Your task to perform on an android device: Open Wikipedia Image 0: 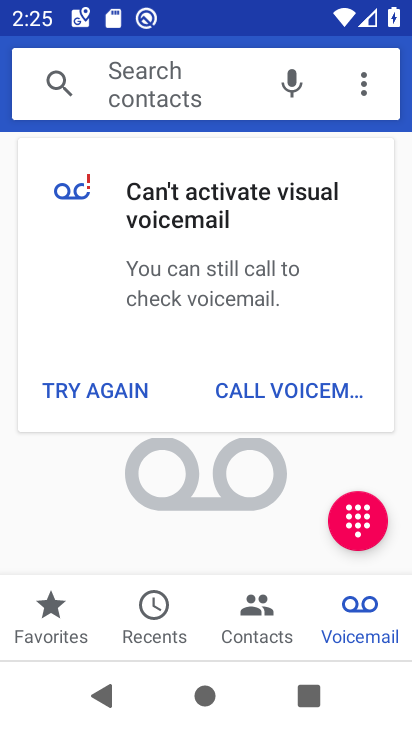
Step 0: press home button
Your task to perform on an android device: Open Wikipedia Image 1: 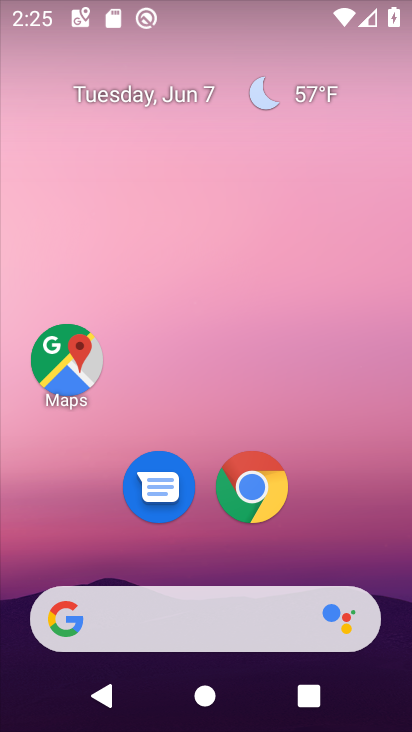
Step 1: click (244, 522)
Your task to perform on an android device: Open Wikipedia Image 2: 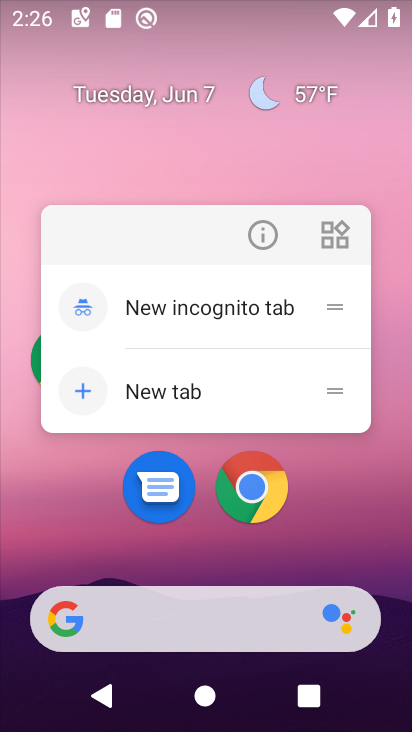
Step 2: click (238, 496)
Your task to perform on an android device: Open Wikipedia Image 3: 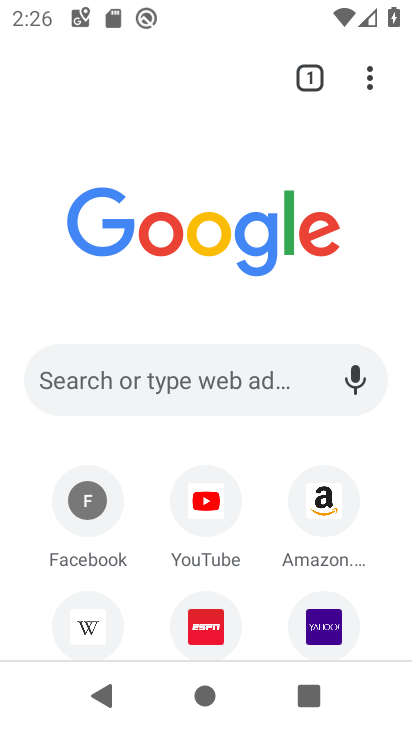
Step 3: click (73, 620)
Your task to perform on an android device: Open Wikipedia Image 4: 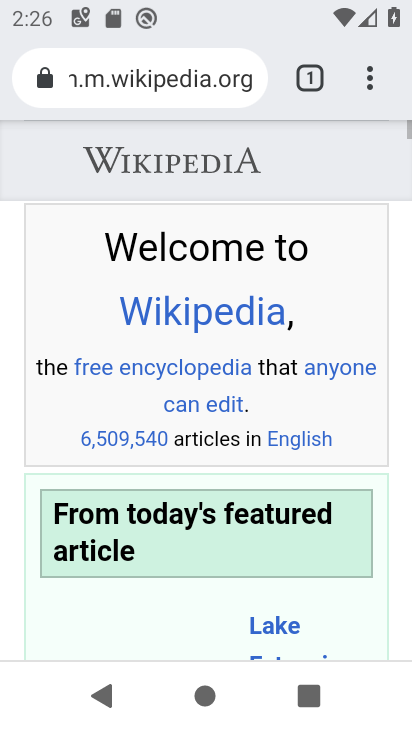
Step 4: task complete